Your task to perform on an android device: visit the assistant section in the google photos Image 0: 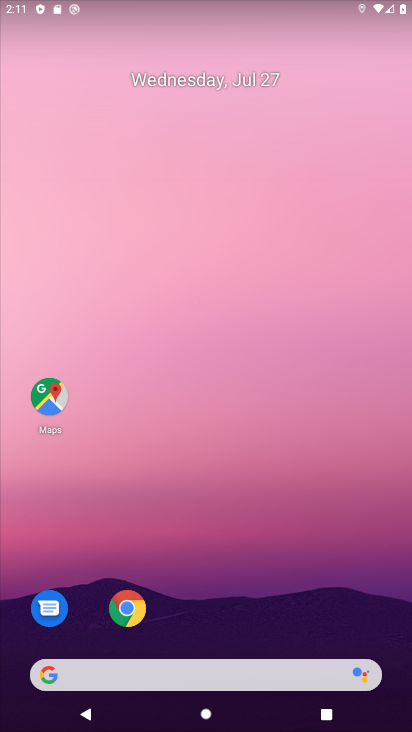
Step 0: drag from (195, 581) to (261, 393)
Your task to perform on an android device: visit the assistant section in the google photos Image 1: 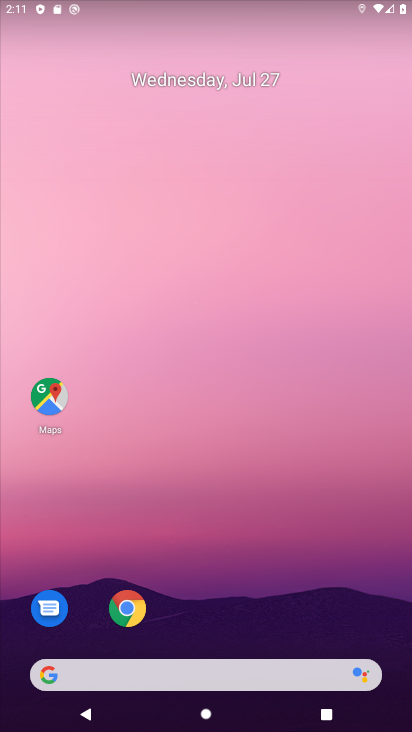
Step 1: drag from (222, 467) to (175, 193)
Your task to perform on an android device: visit the assistant section in the google photos Image 2: 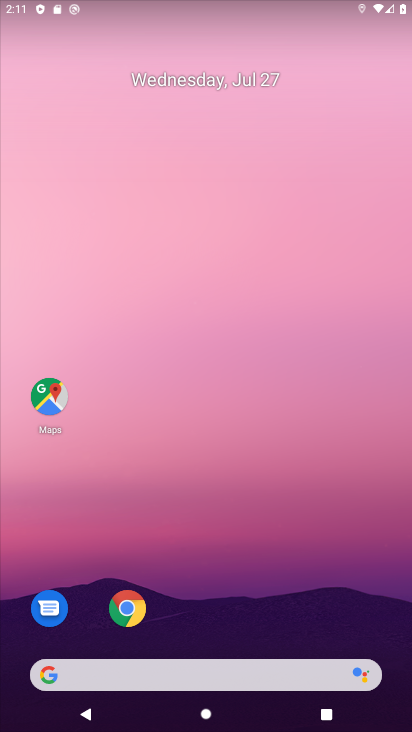
Step 2: drag from (233, 624) to (212, 62)
Your task to perform on an android device: visit the assistant section in the google photos Image 3: 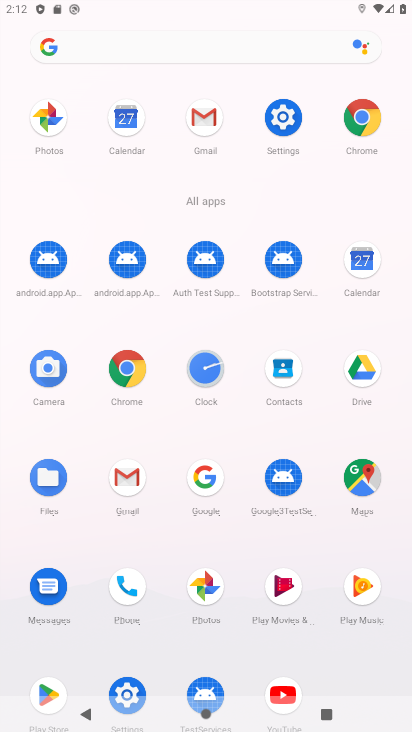
Step 3: click (197, 589)
Your task to perform on an android device: visit the assistant section in the google photos Image 4: 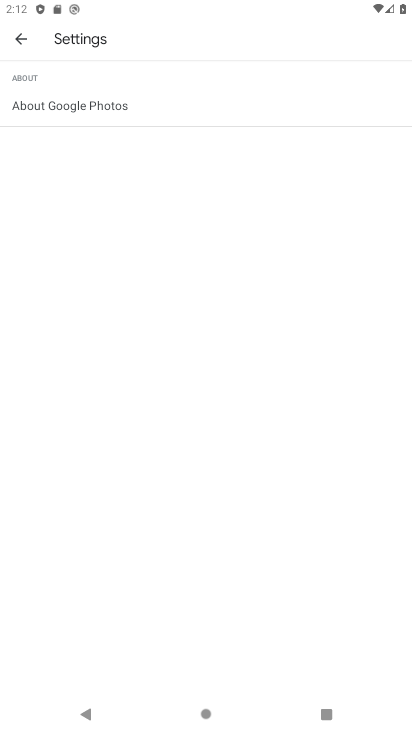
Step 4: click (20, 39)
Your task to perform on an android device: visit the assistant section in the google photos Image 5: 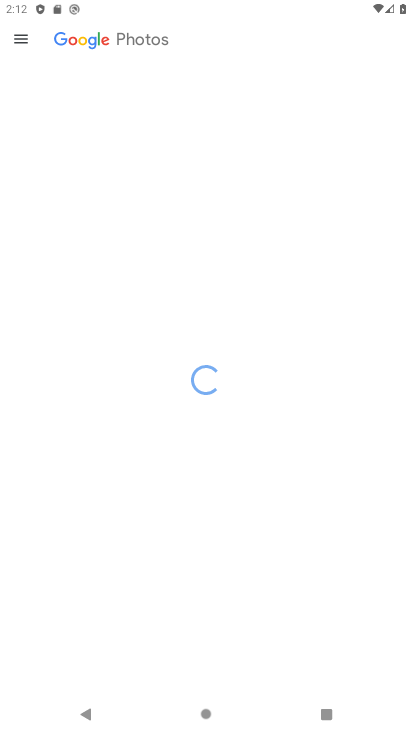
Step 5: click (20, 39)
Your task to perform on an android device: visit the assistant section in the google photos Image 6: 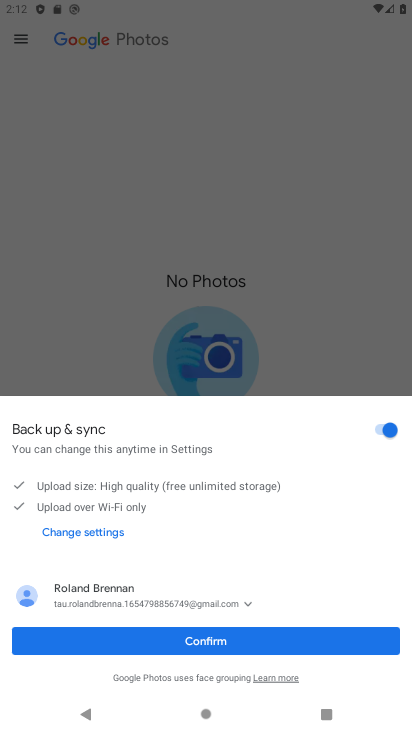
Step 6: click (200, 642)
Your task to perform on an android device: visit the assistant section in the google photos Image 7: 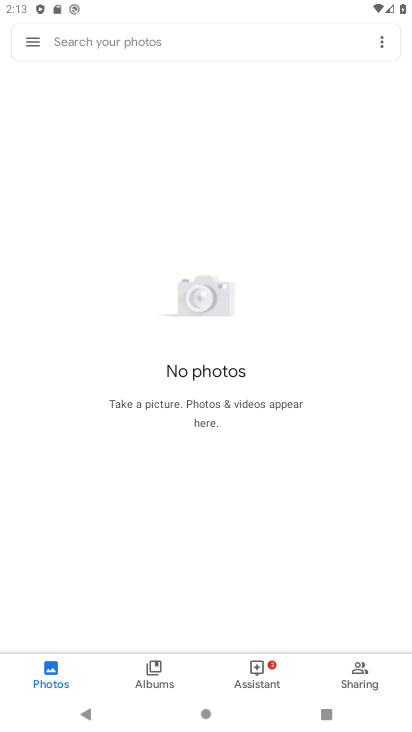
Step 7: click (261, 673)
Your task to perform on an android device: visit the assistant section in the google photos Image 8: 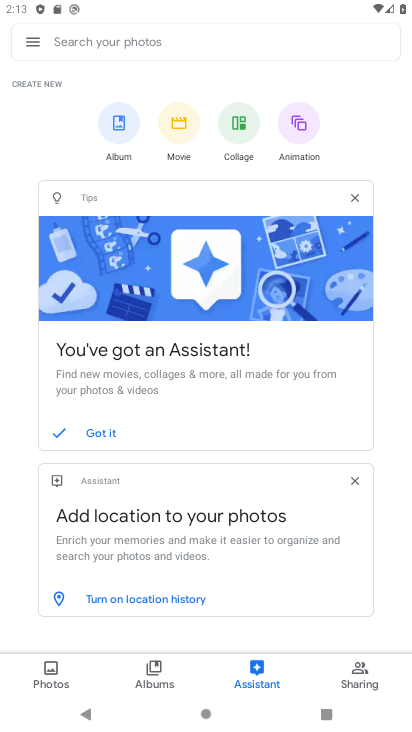
Step 8: task complete